Your task to perform on an android device: empty trash in google photos Image 0: 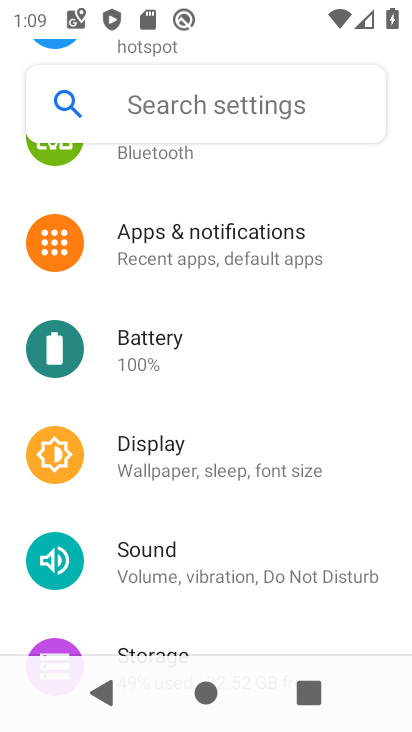
Step 0: press home button
Your task to perform on an android device: empty trash in google photos Image 1: 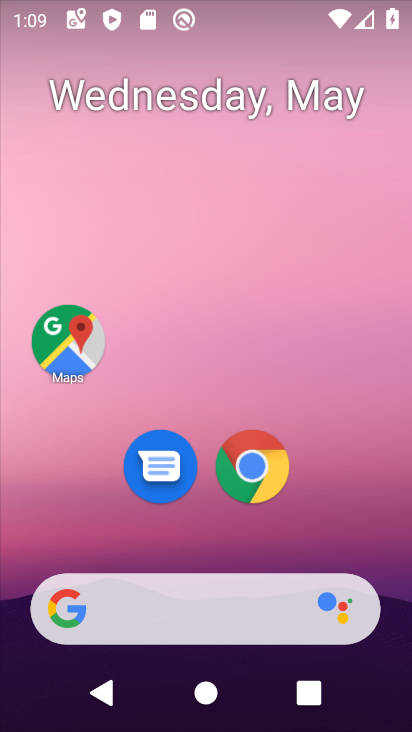
Step 1: drag from (213, 528) to (225, 77)
Your task to perform on an android device: empty trash in google photos Image 2: 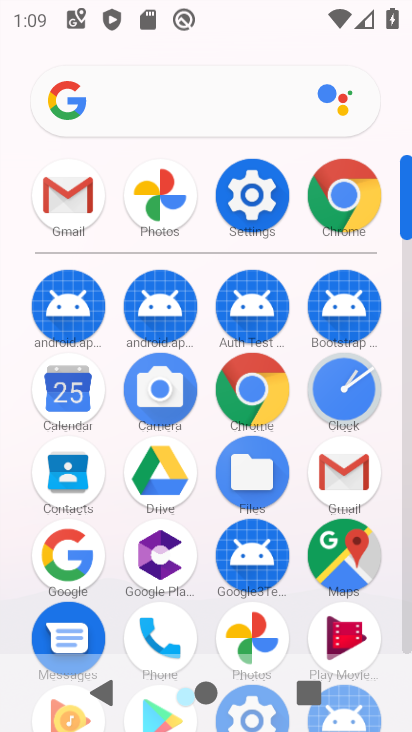
Step 2: click (169, 188)
Your task to perform on an android device: empty trash in google photos Image 3: 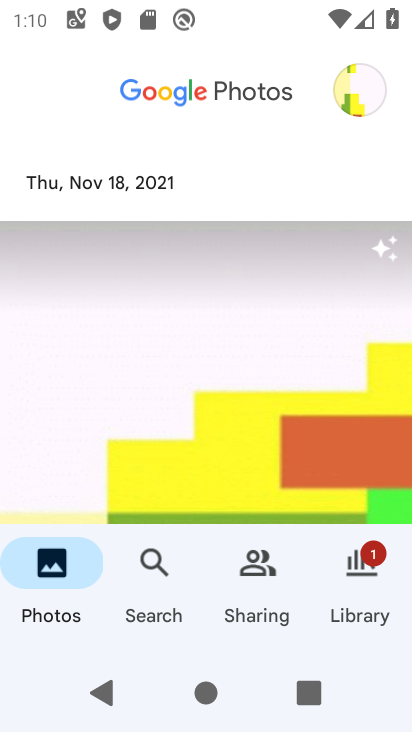
Step 3: click (360, 572)
Your task to perform on an android device: empty trash in google photos Image 4: 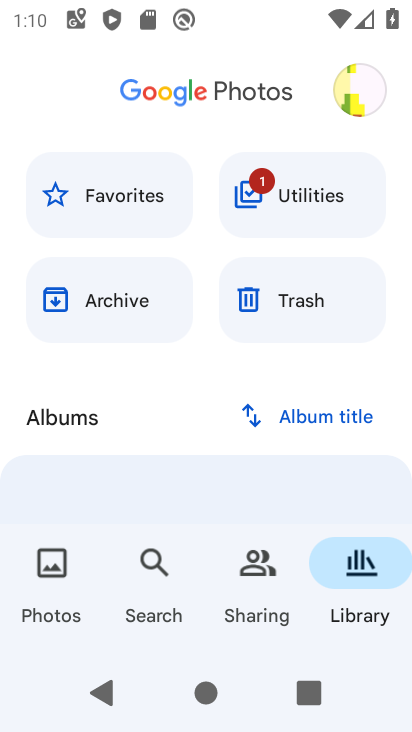
Step 4: click (287, 295)
Your task to perform on an android device: empty trash in google photos Image 5: 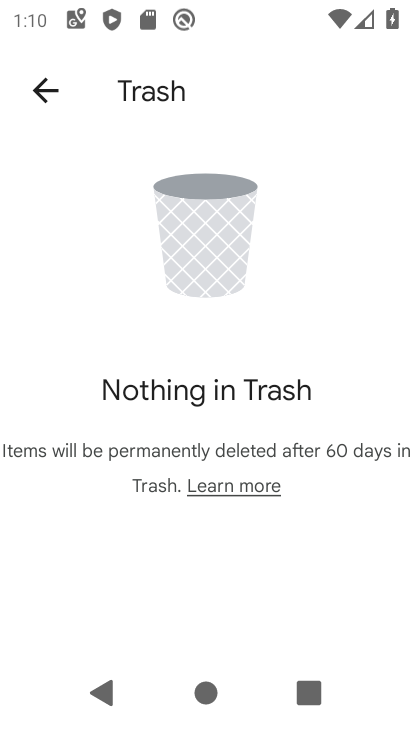
Step 5: task complete